Your task to perform on an android device: open chrome and create a bookmark for the current page Image 0: 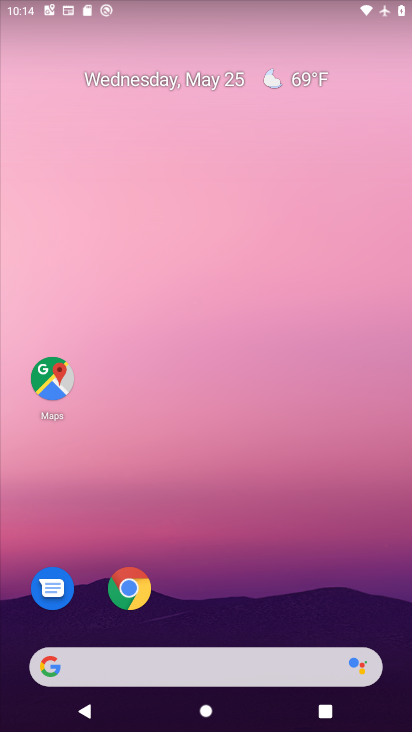
Step 0: drag from (376, 603) to (389, 135)
Your task to perform on an android device: open chrome and create a bookmark for the current page Image 1: 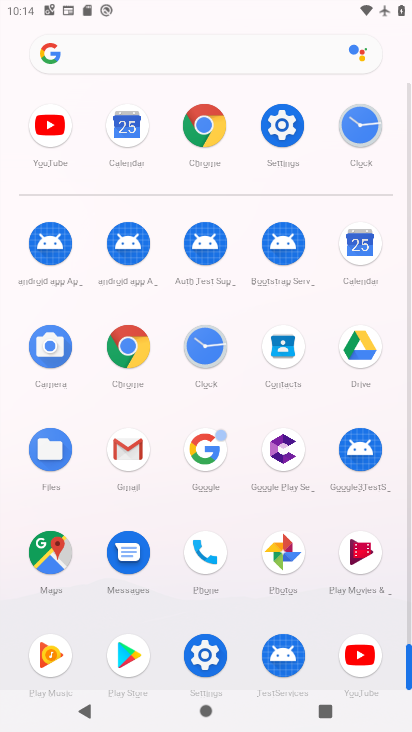
Step 1: click (137, 363)
Your task to perform on an android device: open chrome and create a bookmark for the current page Image 2: 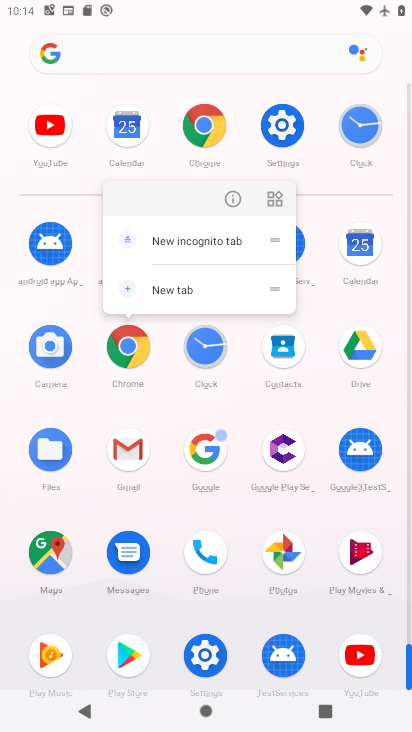
Step 2: click (137, 363)
Your task to perform on an android device: open chrome and create a bookmark for the current page Image 3: 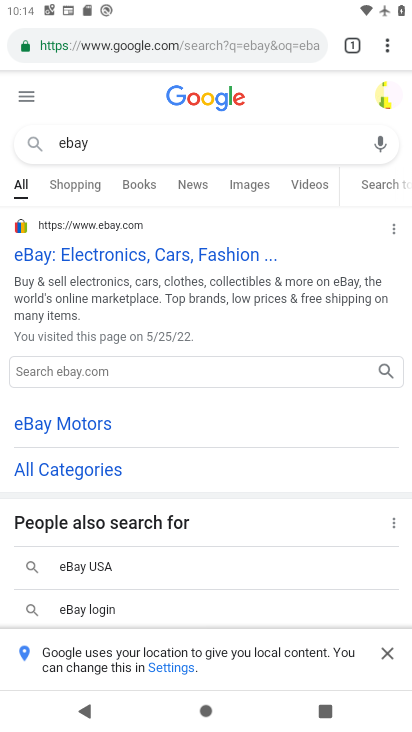
Step 3: click (387, 48)
Your task to perform on an android device: open chrome and create a bookmark for the current page Image 4: 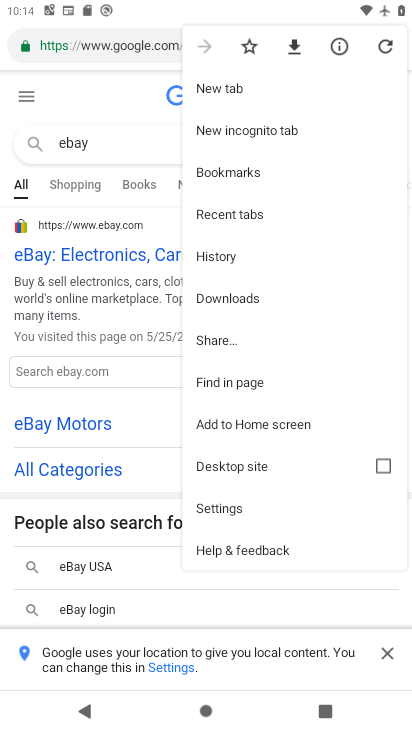
Step 4: click (244, 49)
Your task to perform on an android device: open chrome and create a bookmark for the current page Image 5: 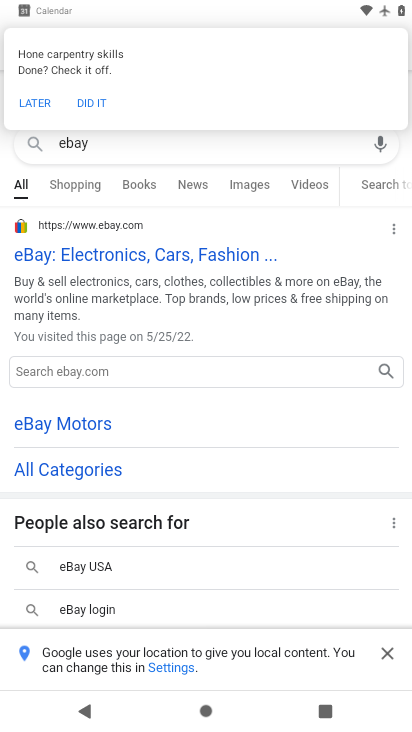
Step 5: task complete